Your task to perform on an android device: Search for vegetarian restaurants on Maps Image 0: 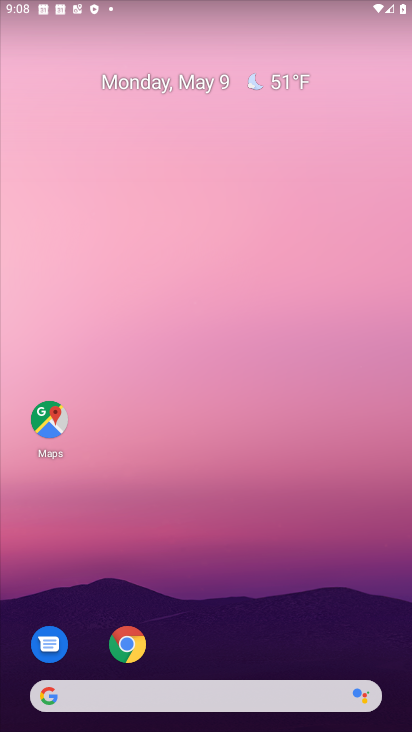
Step 0: drag from (200, 663) to (167, 54)
Your task to perform on an android device: Search for vegetarian restaurants on Maps Image 1: 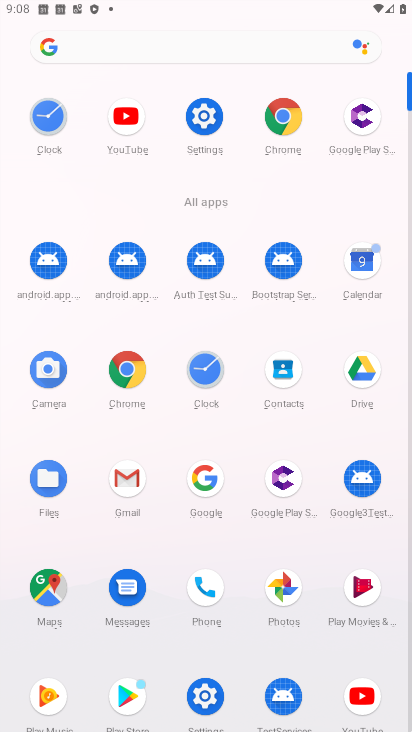
Step 1: click (52, 586)
Your task to perform on an android device: Search for vegetarian restaurants on Maps Image 2: 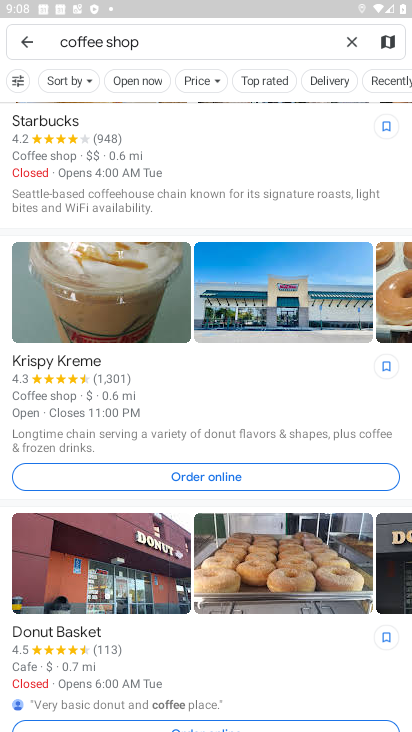
Step 2: click (349, 31)
Your task to perform on an android device: Search for vegetarian restaurants on Maps Image 3: 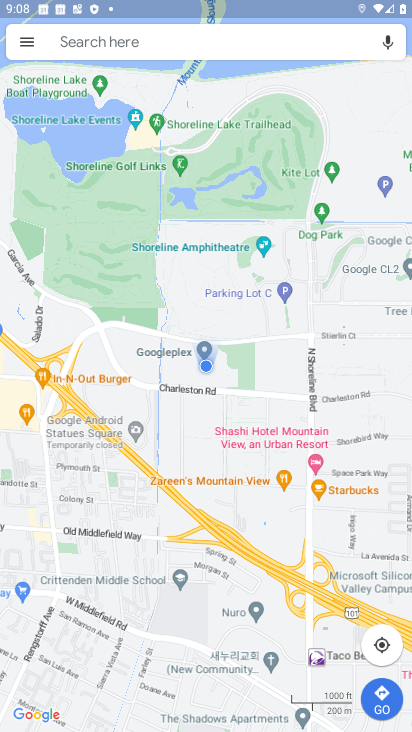
Step 3: click (161, 40)
Your task to perform on an android device: Search for vegetarian restaurants on Maps Image 4: 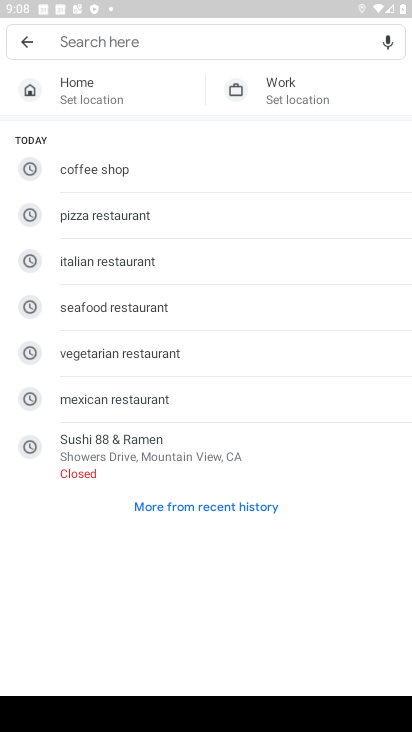
Step 4: click (148, 359)
Your task to perform on an android device: Search for vegetarian restaurants on Maps Image 5: 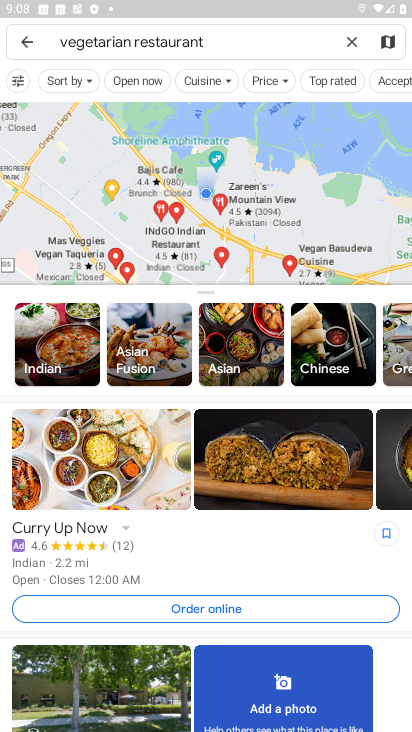
Step 5: task complete